Your task to perform on an android device: check google app version Image 0: 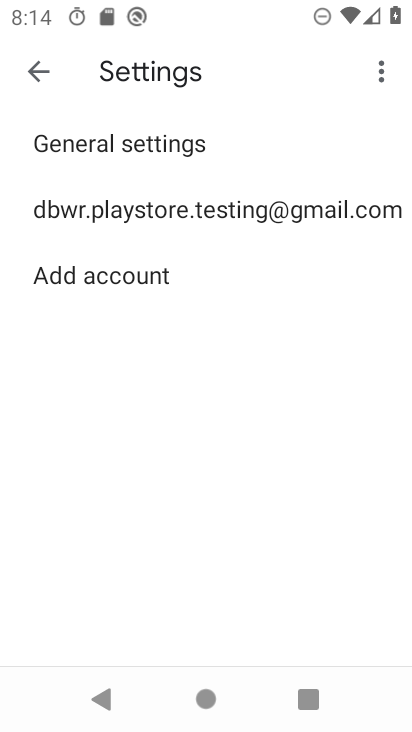
Step 0: press home button
Your task to perform on an android device: check google app version Image 1: 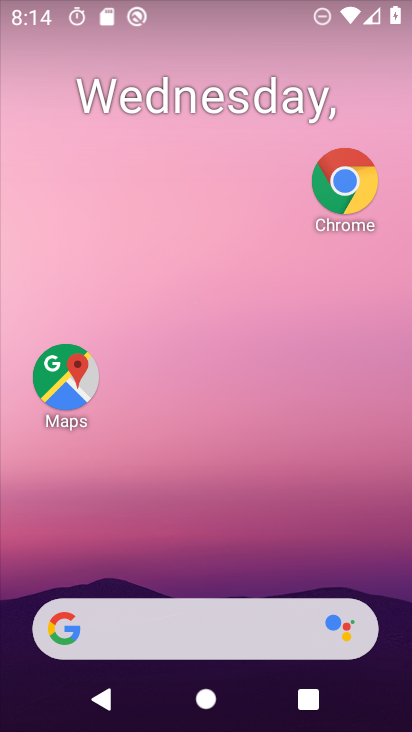
Step 1: drag from (236, 674) to (249, 161)
Your task to perform on an android device: check google app version Image 2: 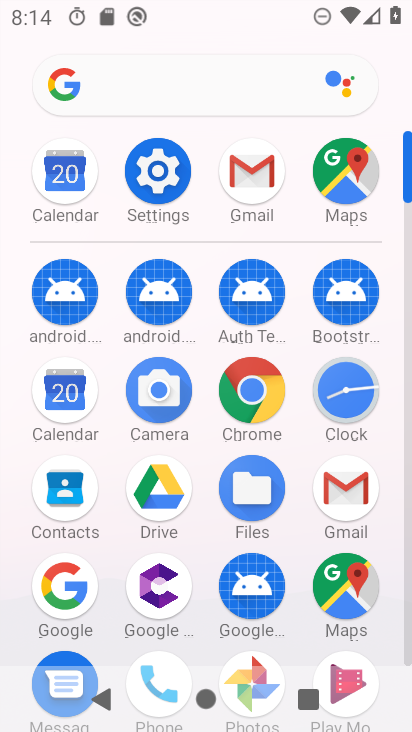
Step 2: click (249, 379)
Your task to perform on an android device: check google app version Image 3: 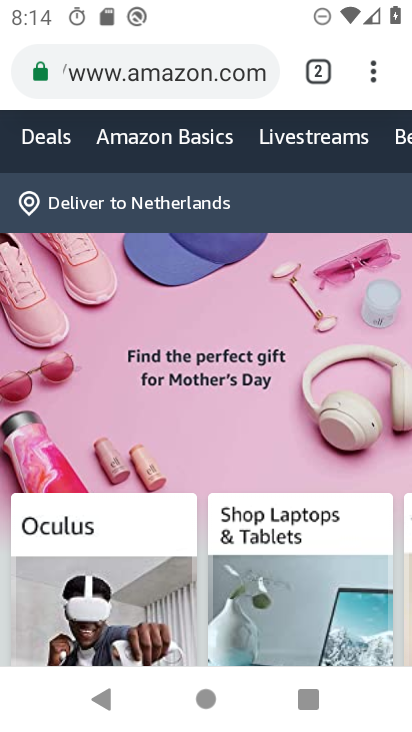
Step 3: click (373, 78)
Your task to perform on an android device: check google app version Image 4: 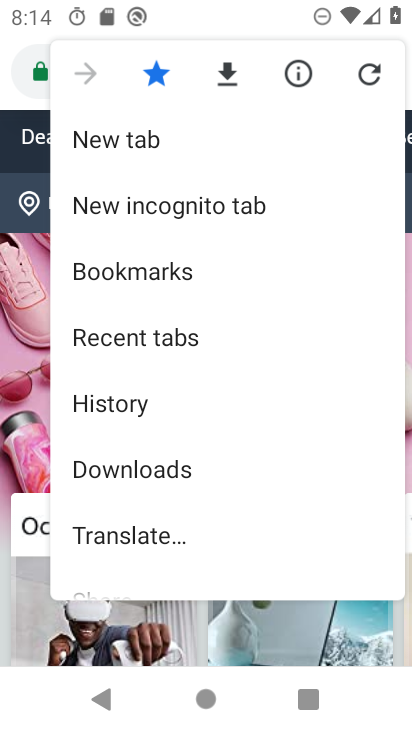
Step 4: drag from (148, 436) to (176, 128)
Your task to perform on an android device: check google app version Image 5: 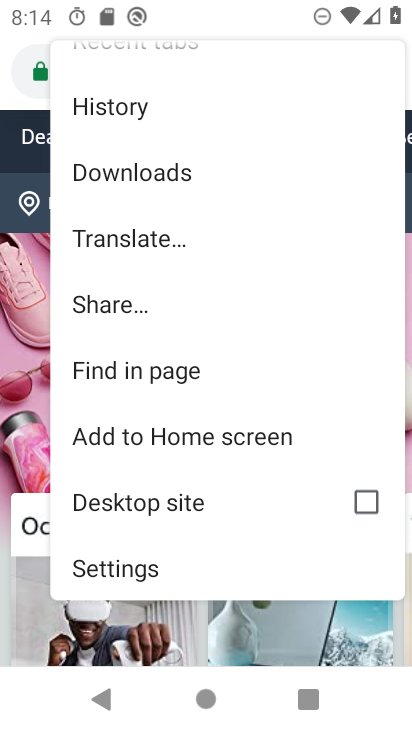
Step 5: click (89, 565)
Your task to perform on an android device: check google app version Image 6: 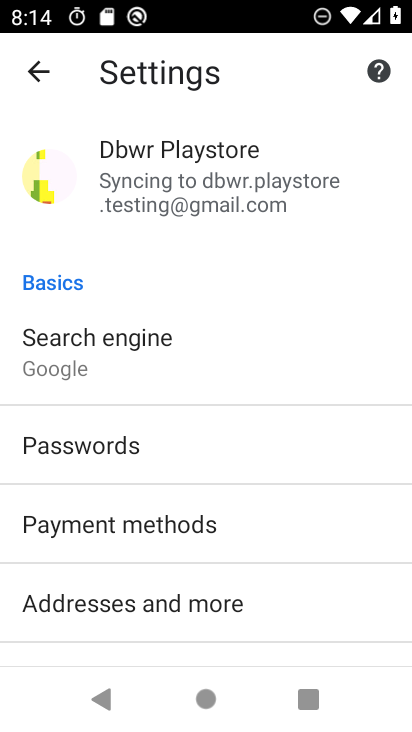
Step 6: drag from (118, 569) to (173, 166)
Your task to perform on an android device: check google app version Image 7: 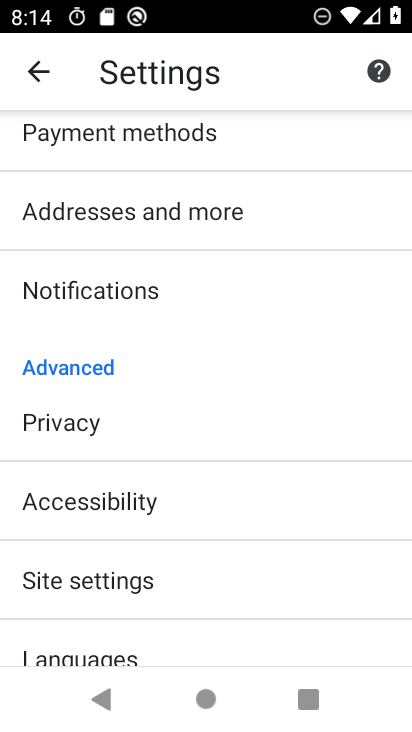
Step 7: drag from (106, 539) to (156, 127)
Your task to perform on an android device: check google app version Image 8: 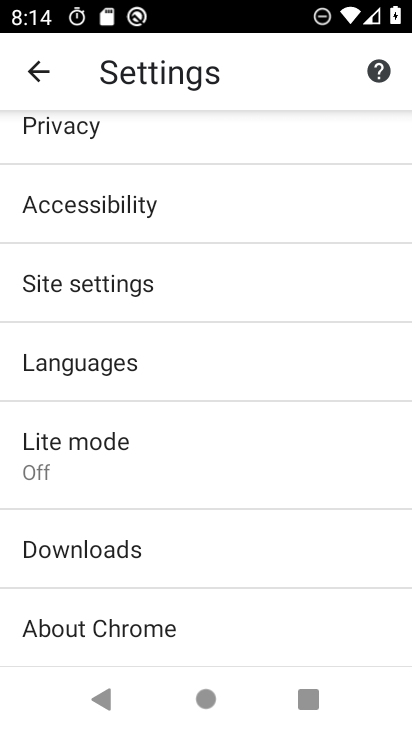
Step 8: click (70, 625)
Your task to perform on an android device: check google app version Image 9: 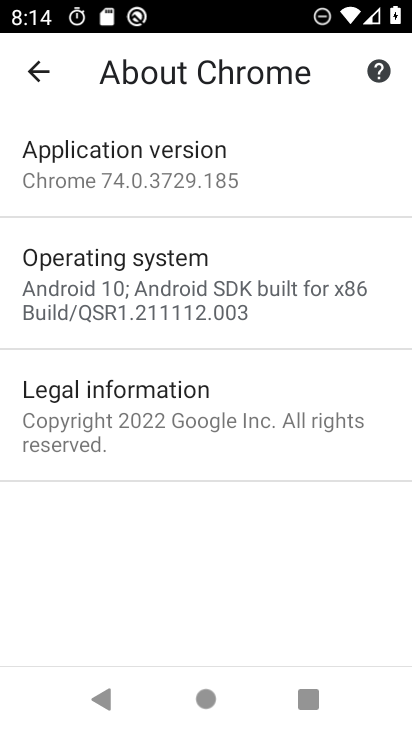
Step 9: click (177, 172)
Your task to perform on an android device: check google app version Image 10: 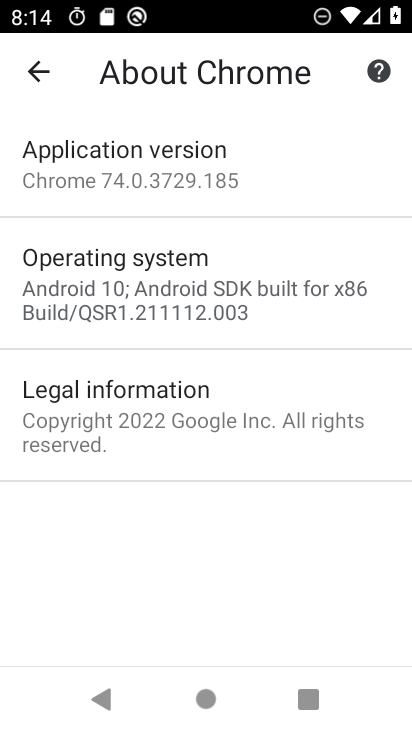
Step 10: task complete